Your task to perform on an android device: What is the news today? Image 0: 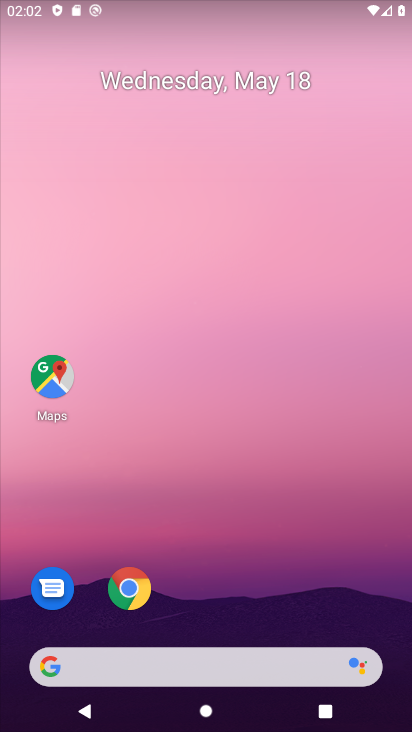
Step 0: press home button
Your task to perform on an android device: What is the news today? Image 1: 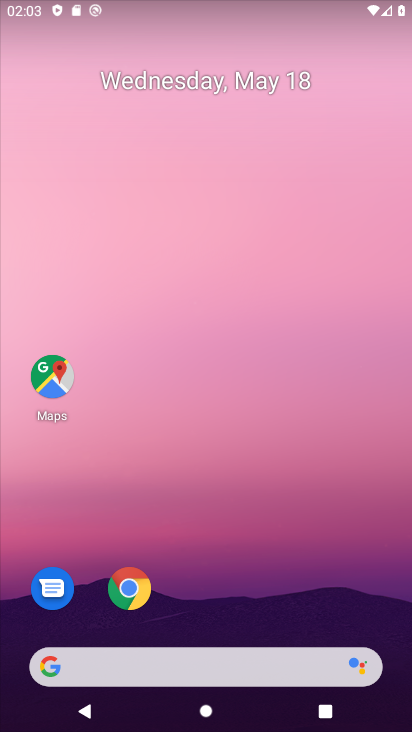
Step 1: click (121, 659)
Your task to perform on an android device: What is the news today? Image 2: 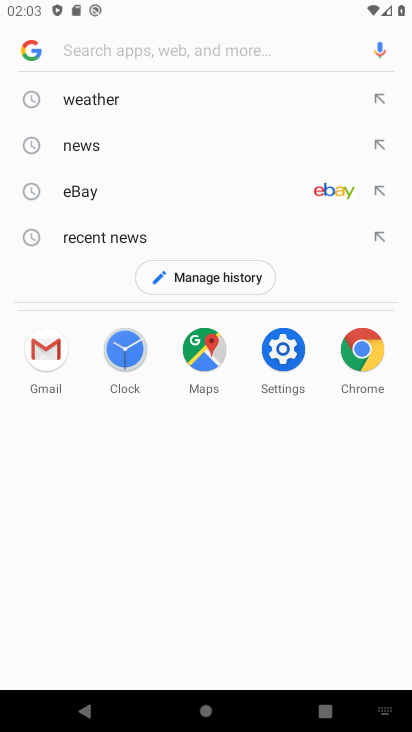
Step 2: click (134, 137)
Your task to perform on an android device: What is the news today? Image 3: 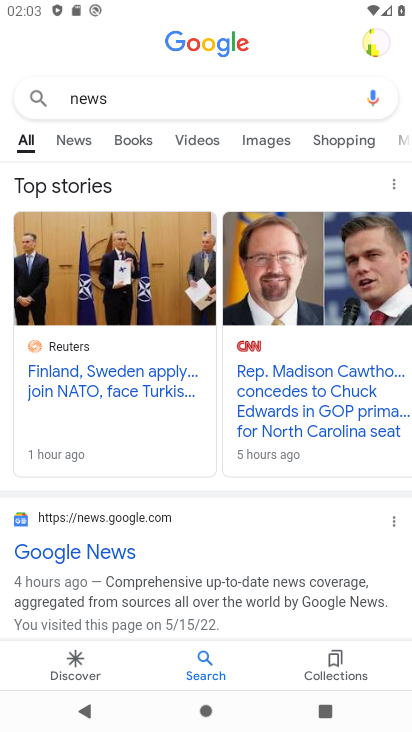
Step 3: task complete